Your task to perform on an android device: toggle show notifications on the lock screen Image 0: 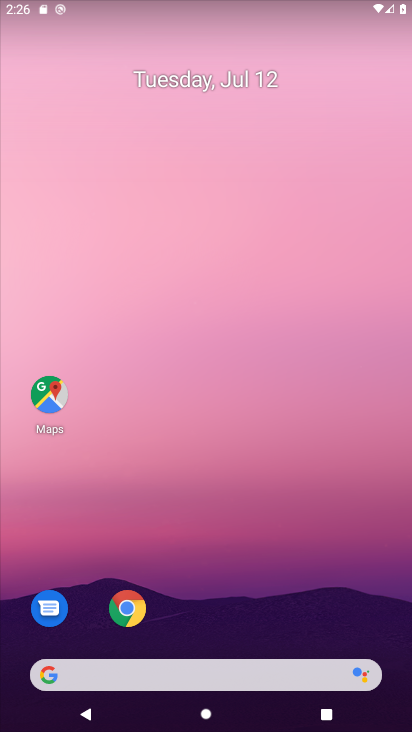
Step 0: drag from (235, 630) to (170, 168)
Your task to perform on an android device: toggle show notifications on the lock screen Image 1: 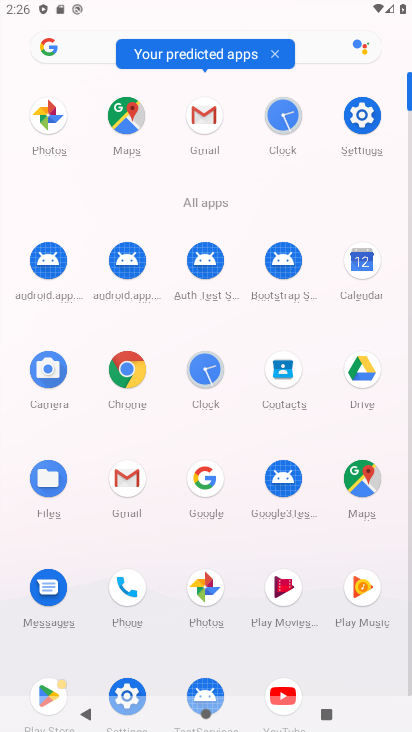
Step 1: click (359, 116)
Your task to perform on an android device: toggle show notifications on the lock screen Image 2: 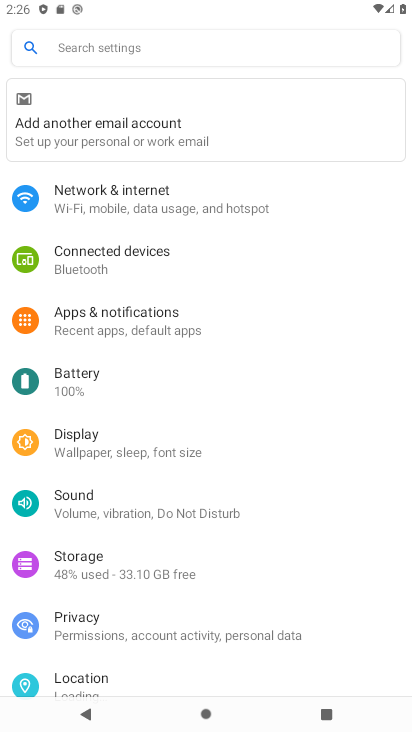
Step 2: click (127, 320)
Your task to perform on an android device: toggle show notifications on the lock screen Image 3: 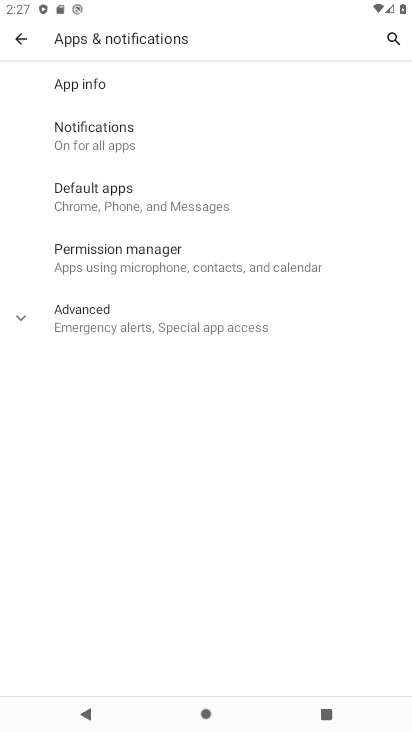
Step 3: click (132, 144)
Your task to perform on an android device: toggle show notifications on the lock screen Image 4: 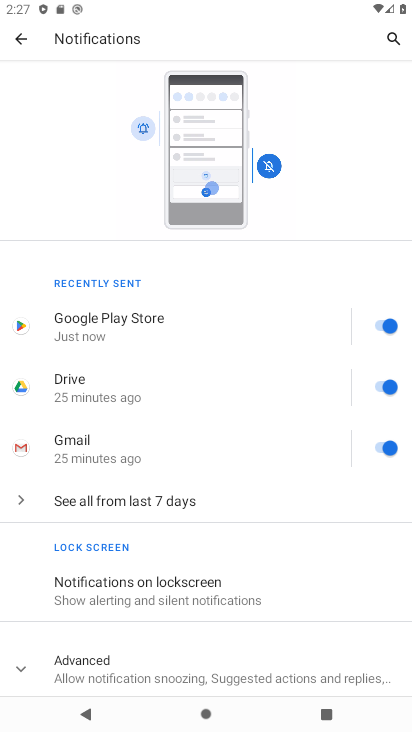
Step 4: click (196, 587)
Your task to perform on an android device: toggle show notifications on the lock screen Image 5: 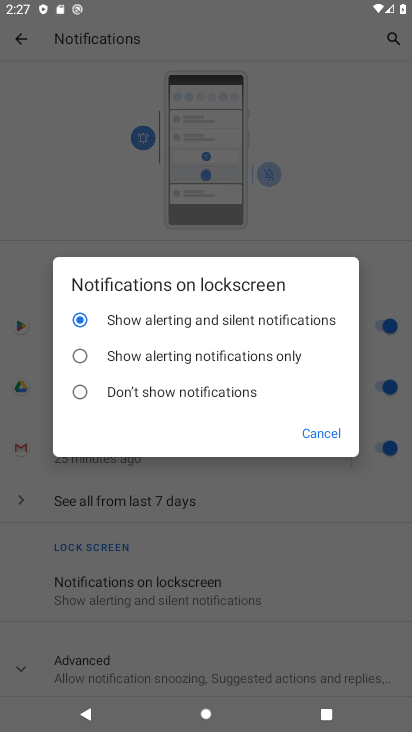
Step 5: click (271, 358)
Your task to perform on an android device: toggle show notifications on the lock screen Image 6: 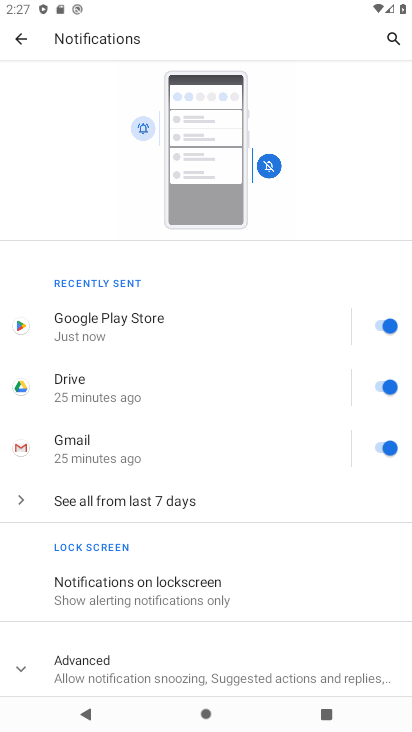
Step 6: task complete